Your task to perform on an android device: see sites visited before in the chrome app Image 0: 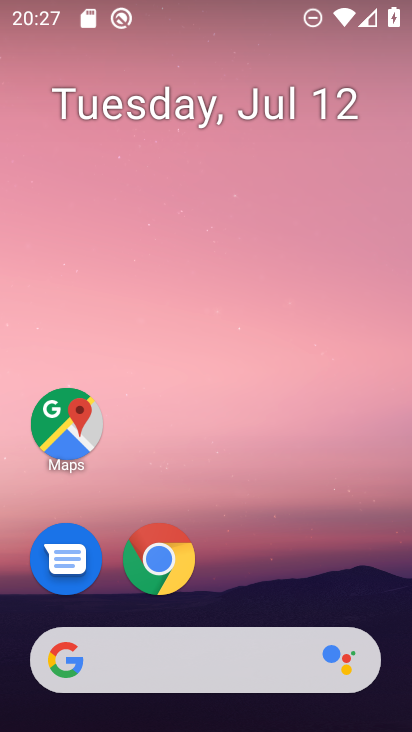
Step 0: drag from (345, 588) to (362, 87)
Your task to perform on an android device: see sites visited before in the chrome app Image 1: 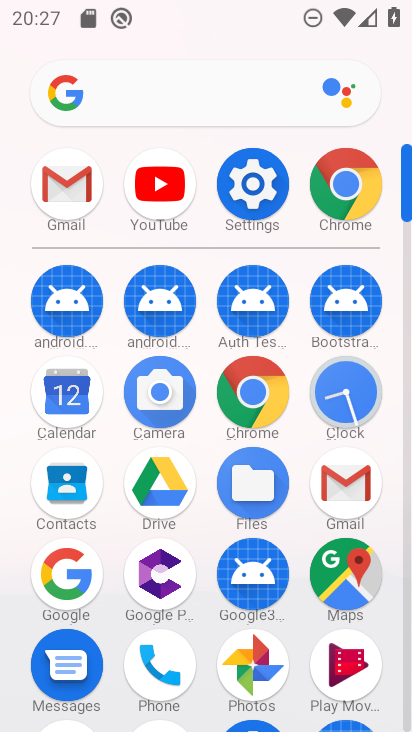
Step 1: click (251, 383)
Your task to perform on an android device: see sites visited before in the chrome app Image 2: 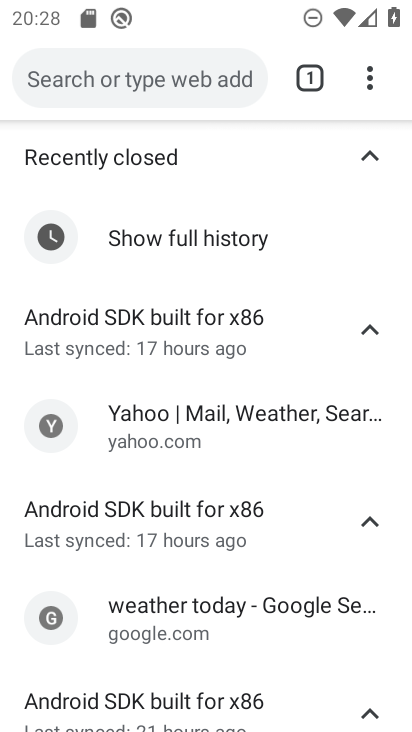
Step 2: click (369, 85)
Your task to perform on an android device: see sites visited before in the chrome app Image 3: 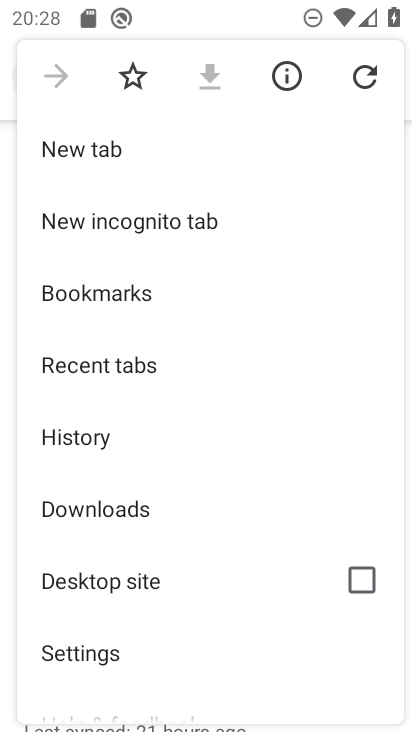
Step 3: click (94, 445)
Your task to perform on an android device: see sites visited before in the chrome app Image 4: 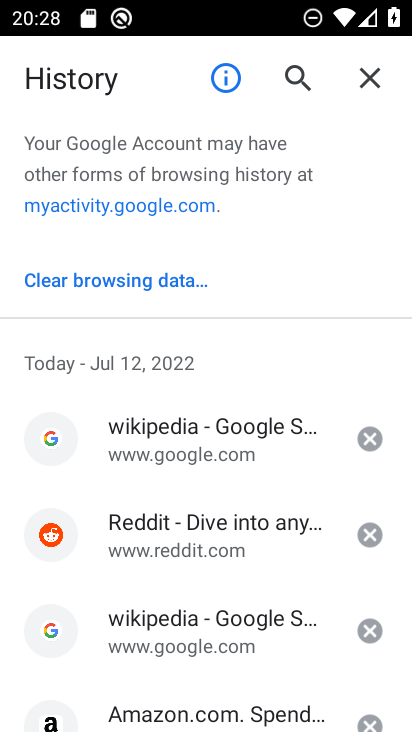
Step 4: task complete